Your task to perform on an android device: visit the assistant section in the google photos Image 0: 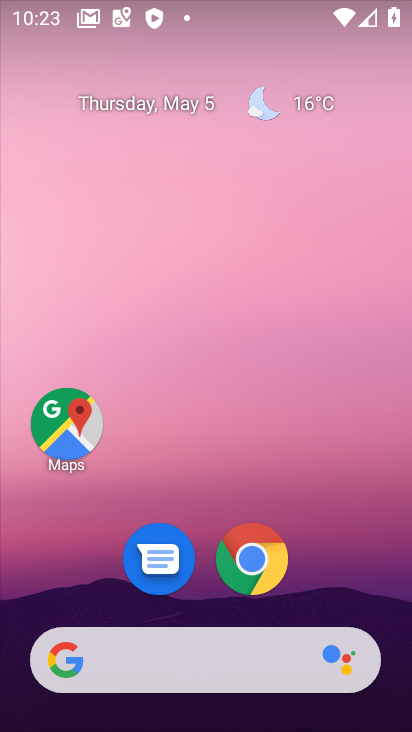
Step 0: drag from (362, 590) to (325, 140)
Your task to perform on an android device: visit the assistant section in the google photos Image 1: 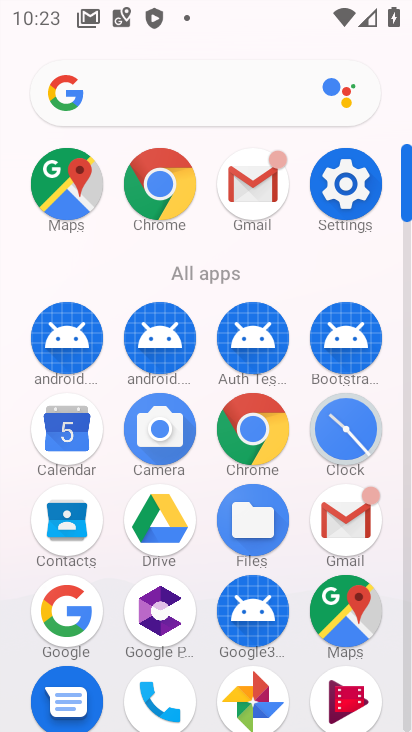
Step 1: click (248, 698)
Your task to perform on an android device: visit the assistant section in the google photos Image 2: 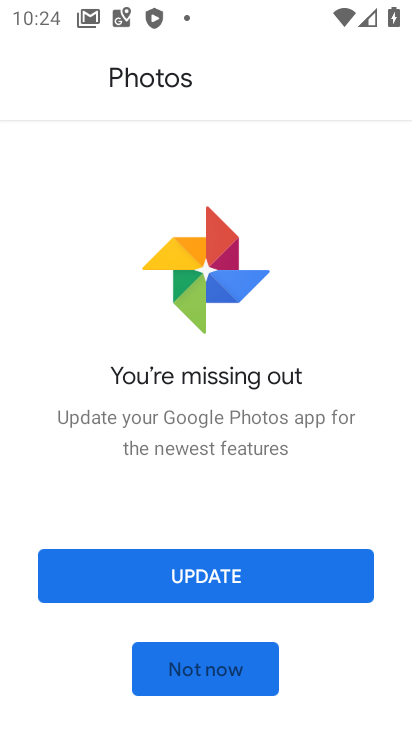
Step 2: click (246, 562)
Your task to perform on an android device: visit the assistant section in the google photos Image 3: 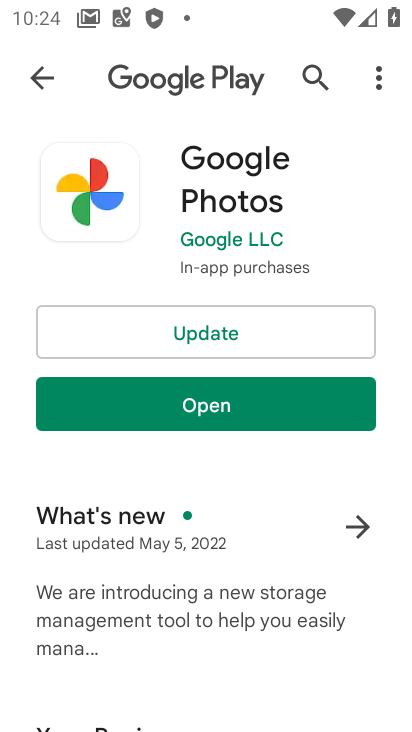
Step 3: click (317, 330)
Your task to perform on an android device: visit the assistant section in the google photos Image 4: 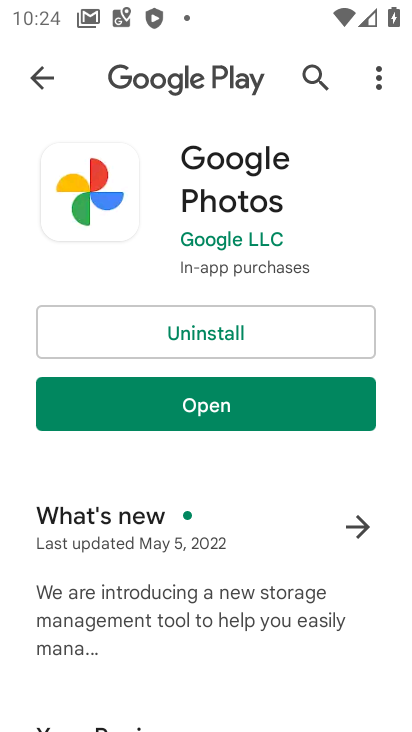
Step 4: click (351, 418)
Your task to perform on an android device: visit the assistant section in the google photos Image 5: 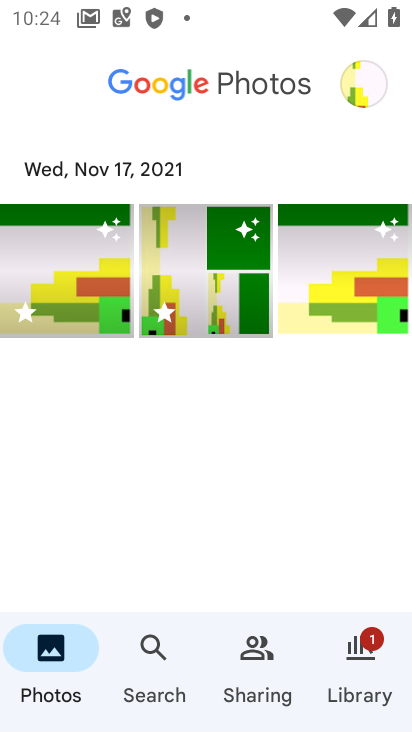
Step 5: click (366, 658)
Your task to perform on an android device: visit the assistant section in the google photos Image 6: 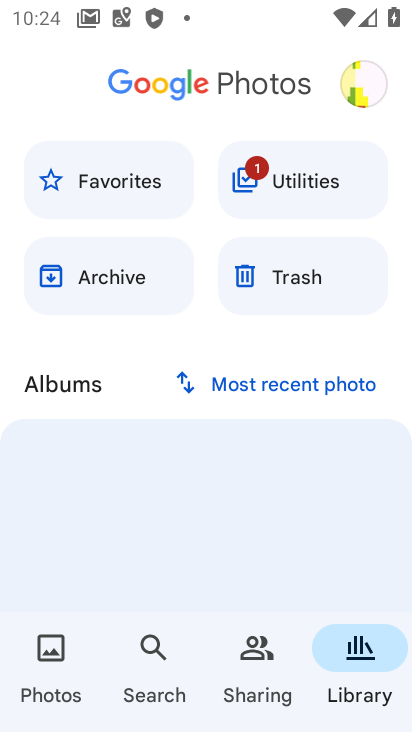
Step 6: task complete